Your task to perform on an android device: install app "Cash App" Image 0: 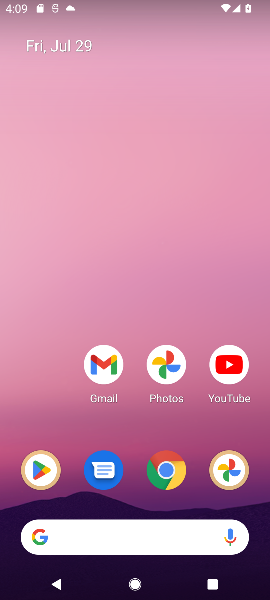
Step 0: click (54, 464)
Your task to perform on an android device: install app "Cash App" Image 1: 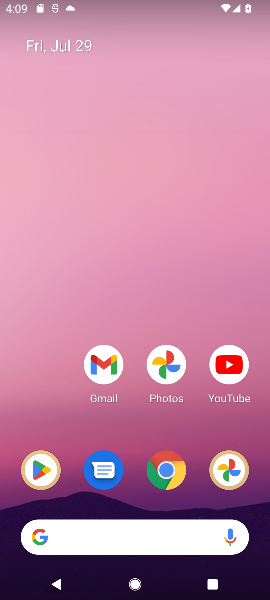
Step 1: click (54, 464)
Your task to perform on an android device: install app "Cash App" Image 2: 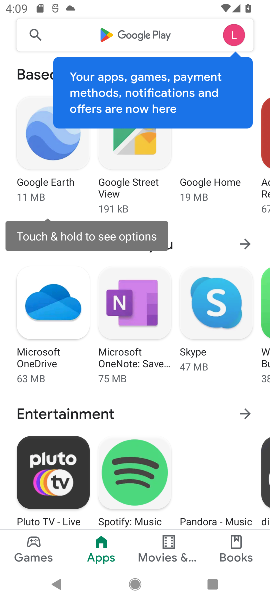
Step 2: click (106, 31)
Your task to perform on an android device: install app "Cash App" Image 3: 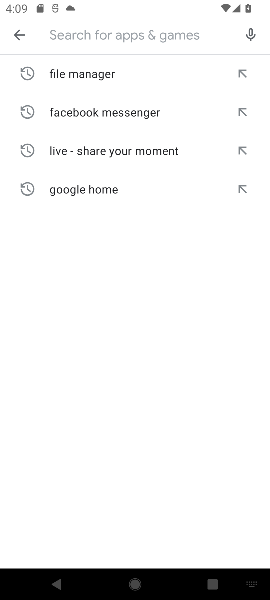
Step 3: type "Cash App"
Your task to perform on an android device: install app "Cash App" Image 4: 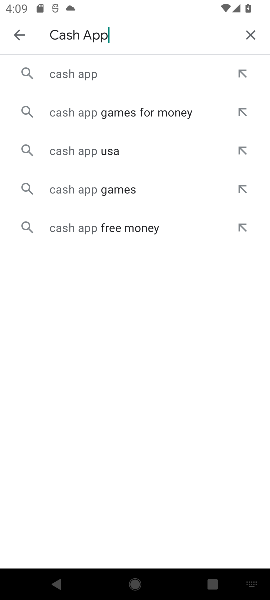
Step 4: click (55, 70)
Your task to perform on an android device: install app "Cash App" Image 5: 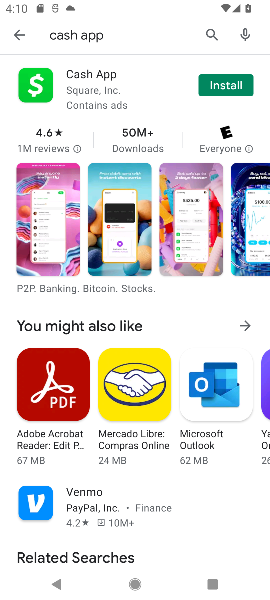
Step 5: click (229, 85)
Your task to perform on an android device: install app "Cash App" Image 6: 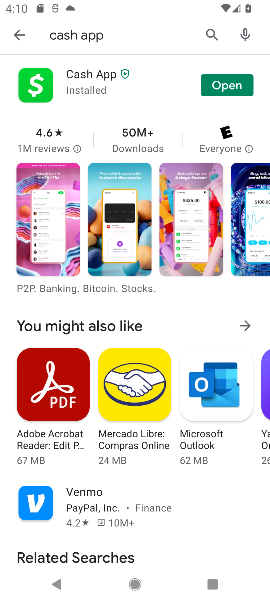
Step 6: task complete